Your task to perform on an android device: Toggle the flashlight Image 0: 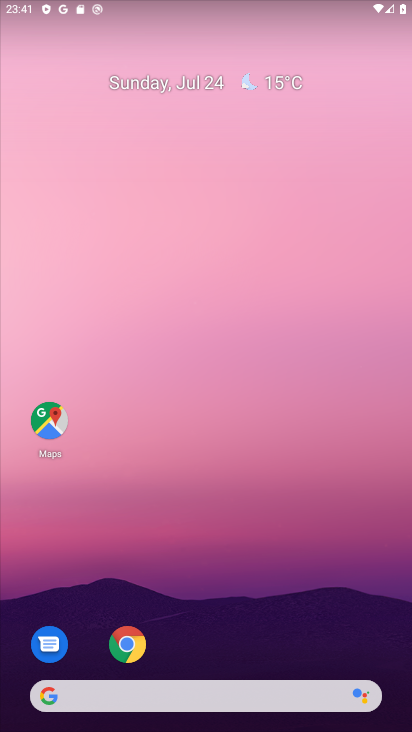
Step 0: click (223, 721)
Your task to perform on an android device: Toggle the flashlight Image 1: 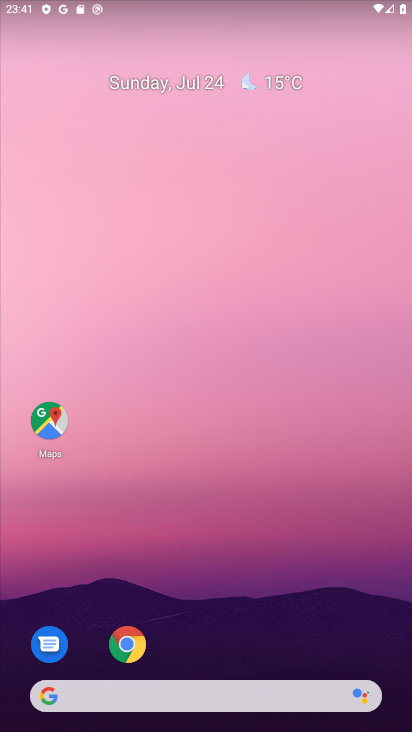
Step 1: drag from (220, 375) to (220, 302)
Your task to perform on an android device: Toggle the flashlight Image 2: 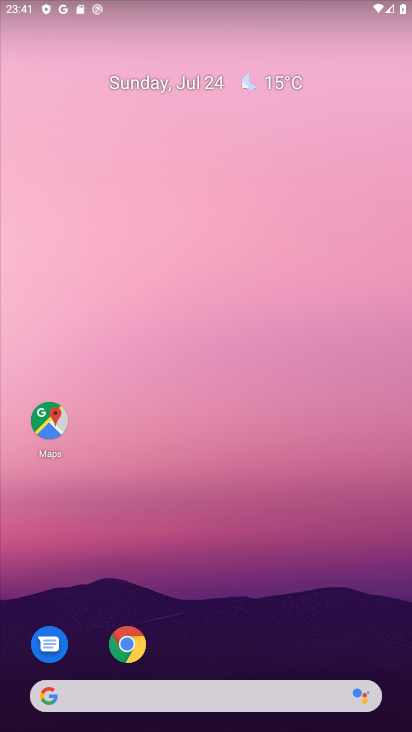
Step 2: drag from (233, 725) to (231, 208)
Your task to perform on an android device: Toggle the flashlight Image 3: 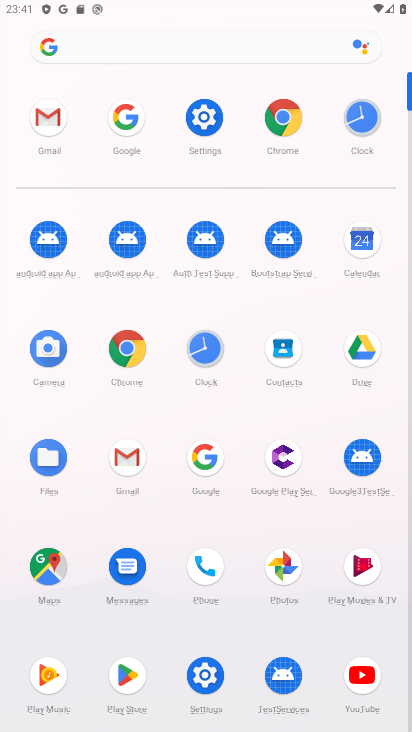
Step 3: click (199, 115)
Your task to perform on an android device: Toggle the flashlight Image 4: 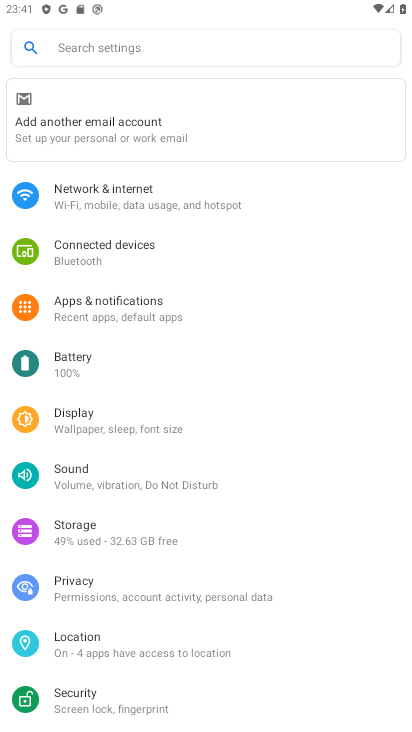
Step 4: click (137, 666)
Your task to perform on an android device: Toggle the flashlight Image 5: 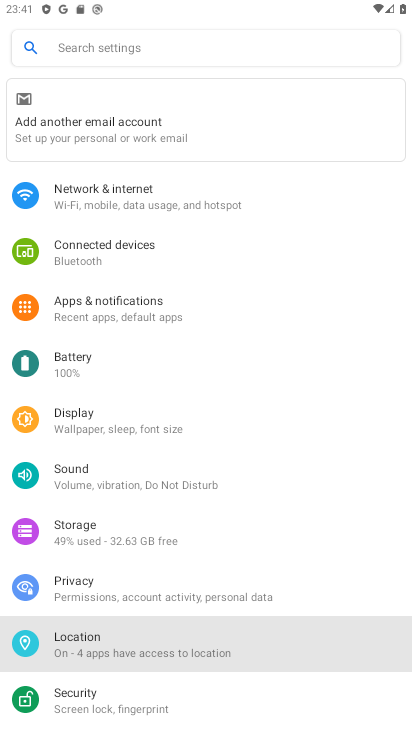
Step 5: click (135, 364)
Your task to perform on an android device: Toggle the flashlight Image 6: 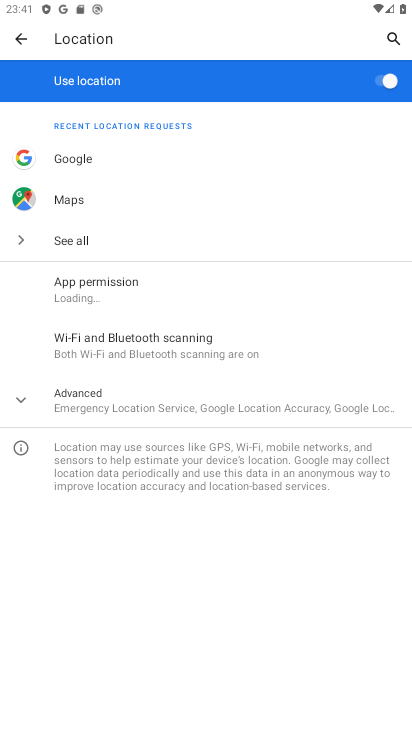
Step 6: click (20, 32)
Your task to perform on an android device: Toggle the flashlight Image 7: 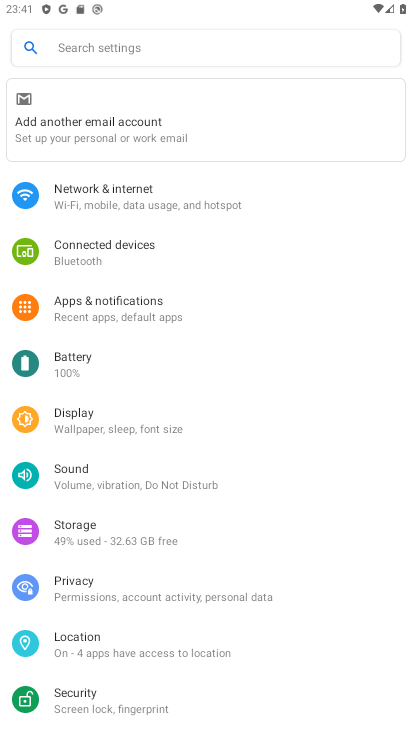
Step 7: drag from (180, 665) to (180, 607)
Your task to perform on an android device: Toggle the flashlight Image 8: 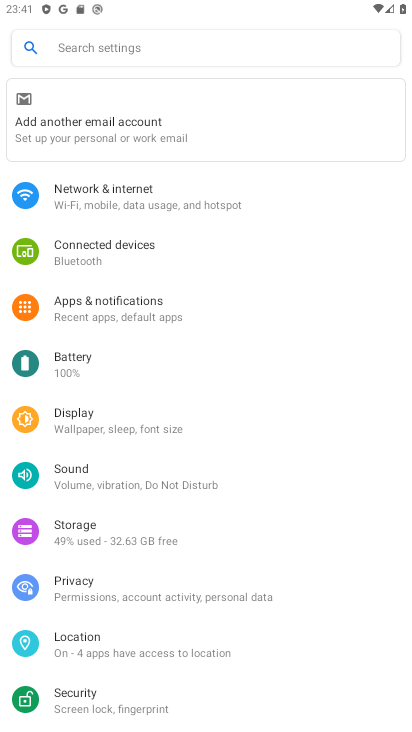
Step 8: click (150, 243)
Your task to perform on an android device: Toggle the flashlight Image 9: 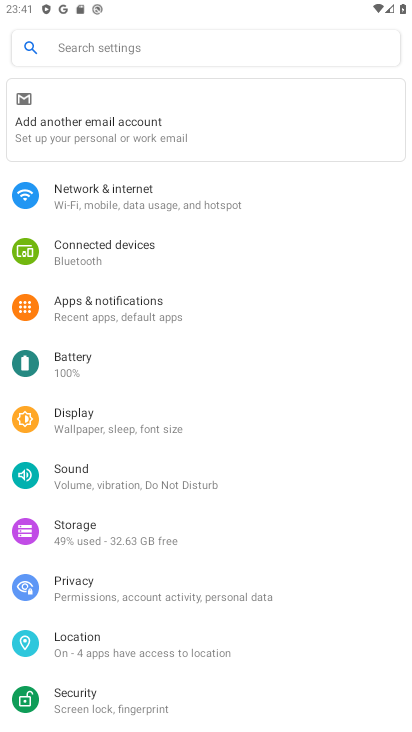
Step 9: task complete